Your task to perform on an android device: turn on data saver in the chrome app Image 0: 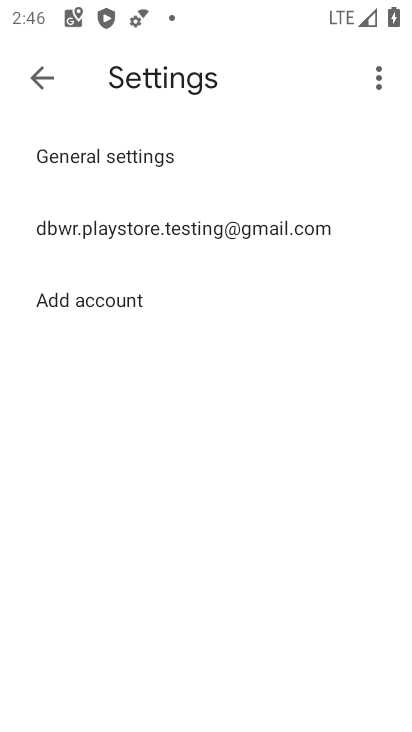
Step 0: press back button
Your task to perform on an android device: turn on data saver in the chrome app Image 1: 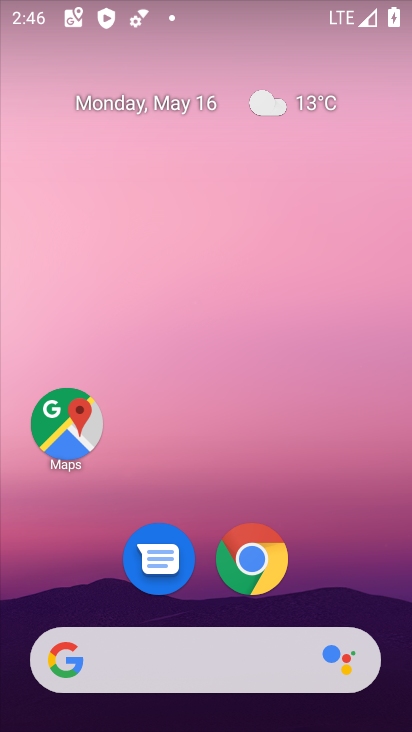
Step 1: click (248, 571)
Your task to perform on an android device: turn on data saver in the chrome app Image 2: 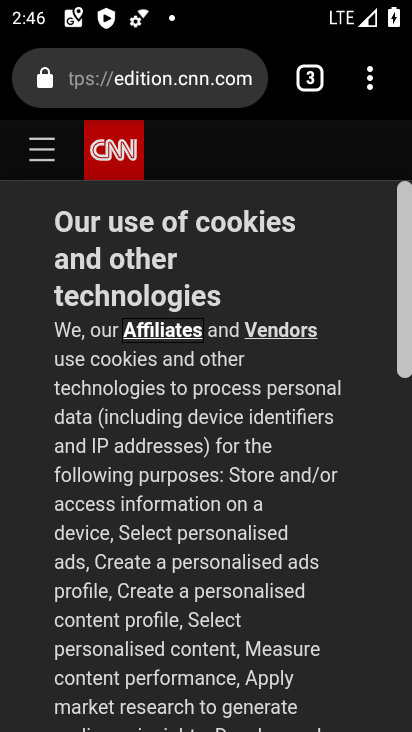
Step 2: drag from (372, 76) to (126, 609)
Your task to perform on an android device: turn on data saver in the chrome app Image 3: 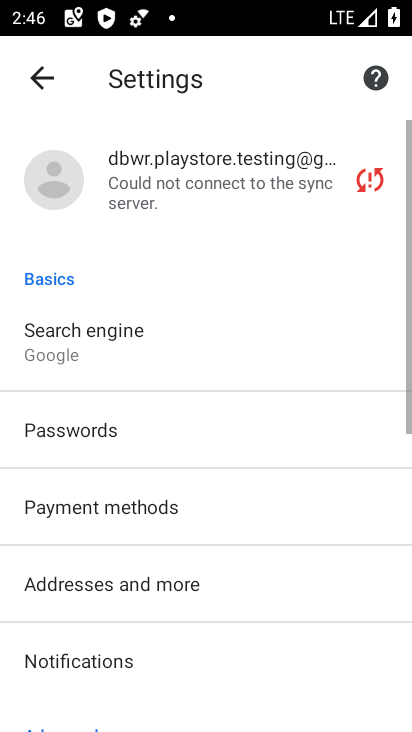
Step 3: drag from (114, 656) to (246, 137)
Your task to perform on an android device: turn on data saver in the chrome app Image 4: 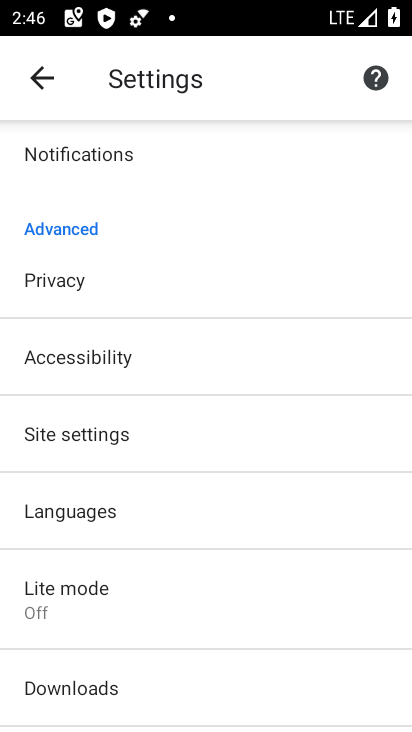
Step 4: drag from (127, 694) to (220, 424)
Your task to perform on an android device: turn on data saver in the chrome app Image 5: 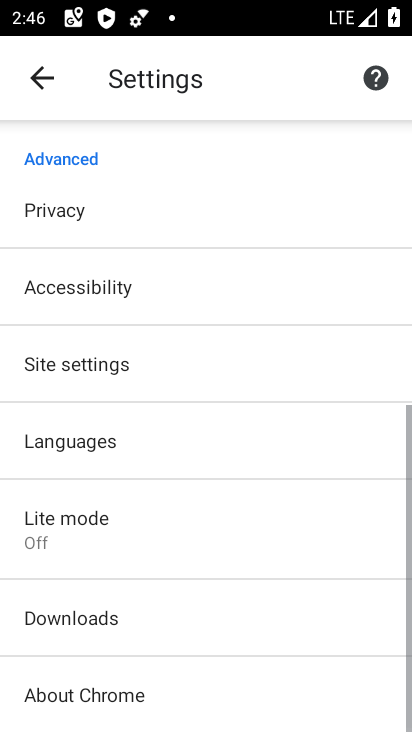
Step 5: click (61, 522)
Your task to perform on an android device: turn on data saver in the chrome app Image 6: 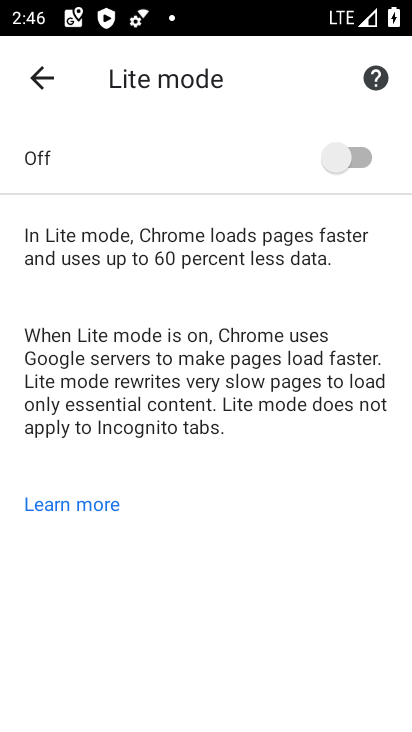
Step 6: click (357, 158)
Your task to perform on an android device: turn on data saver in the chrome app Image 7: 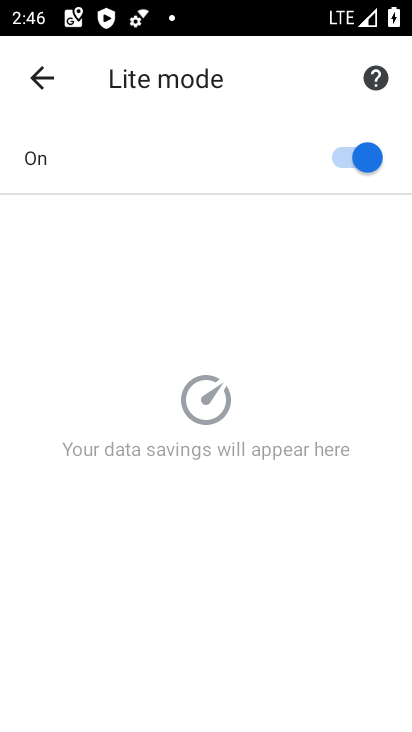
Step 7: task complete